Your task to perform on an android device: turn on data saver in the chrome app Image 0: 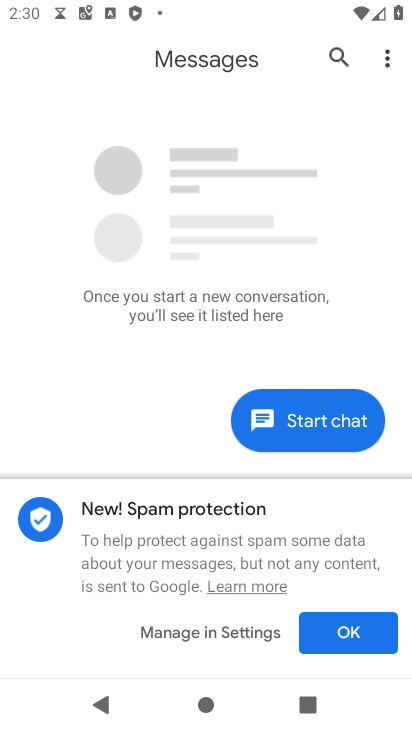
Step 0: press home button
Your task to perform on an android device: turn on data saver in the chrome app Image 1: 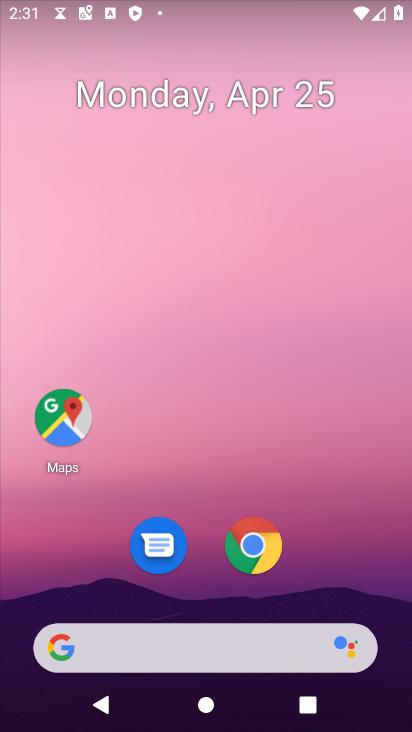
Step 1: click (256, 545)
Your task to perform on an android device: turn on data saver in the chrome app Image 2: 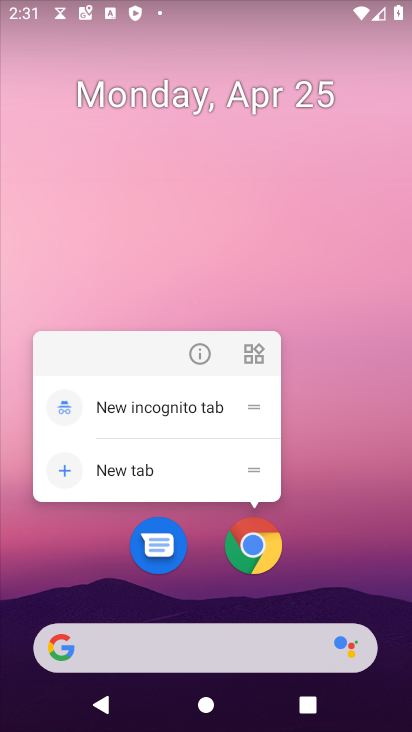
Step 2: click (256, 545)
Your task to perform on an android device: turn on data saver in the chrome app Image 3: 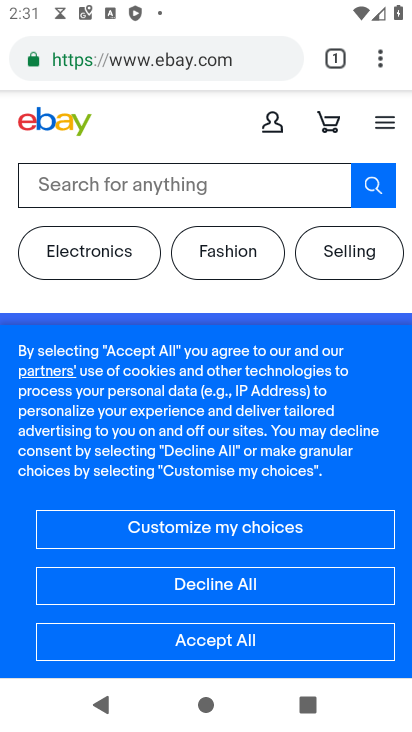
Step 3: drag from (382, 68) to (241, 573)
Your task to perform on an android device: turn on data saver in the chrome app Image 4: 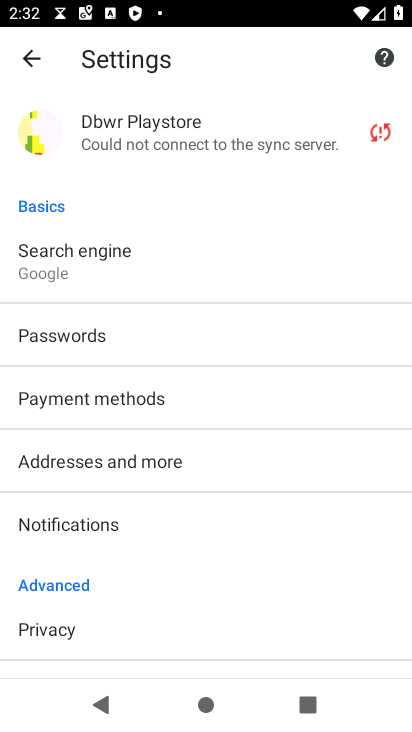
Step 4: drag from (160, 608) to (155, 180)
Your task to perform on an android device: turn on data saver in the chrome app Image 5: 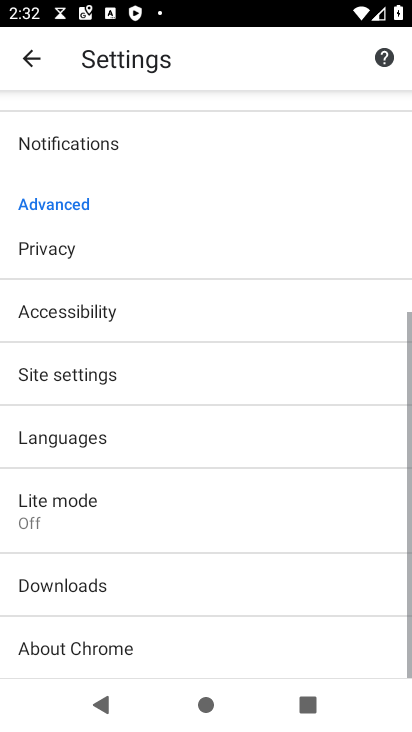
Step 5: click (122, 523)
Your task to perform on an android device: turn on data saver in the chrome app Image 6: 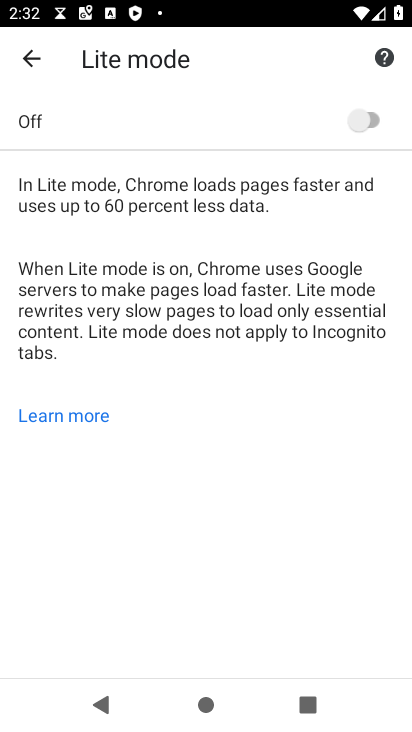
Step 6: click (367, 108)
Your task to perform on an android device: turn on data saver in the chrome app Image 7: 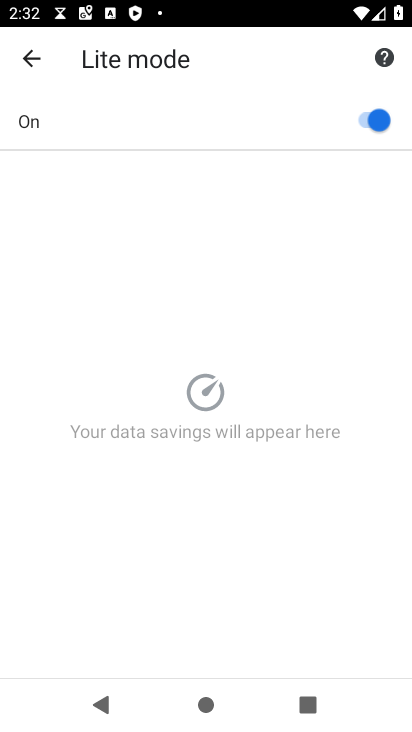
Step 7: task complete